Your task to perform on an android device: find which apps use the phone's location Image 0: 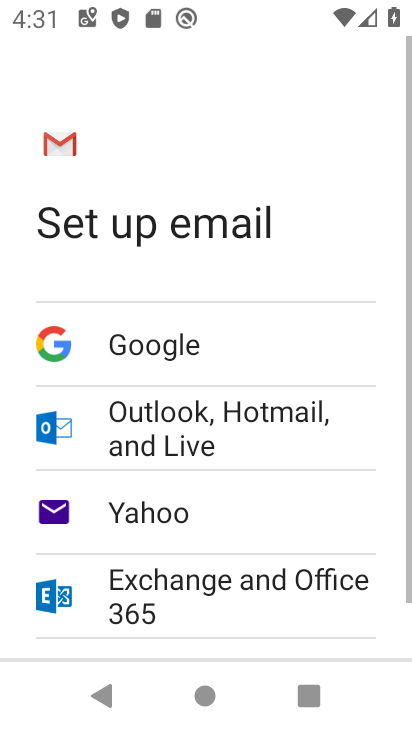
Step 0: press back button
Your task to perform on an android device: find which apps use the phone's location Image 1: 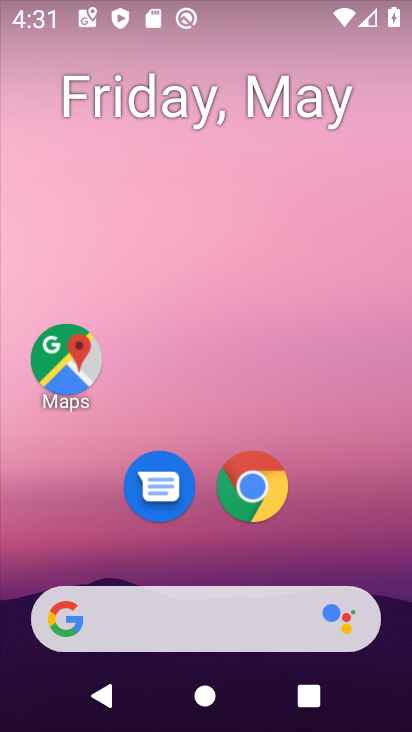
Step 1: drag from (353, 526) to (322, 3)
Your task to perform on an android device: find which apps use the phone's location Image 2: 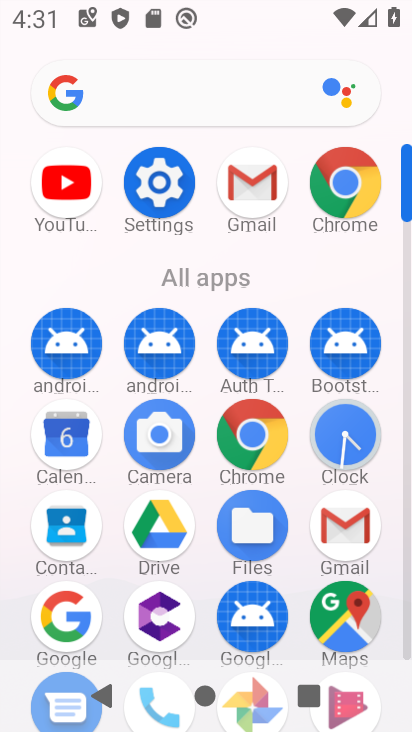
Step 2: drag from (5, 572) to (23, 179)
Your task to perform on an android device: find which apps use the phone's location Image 3: 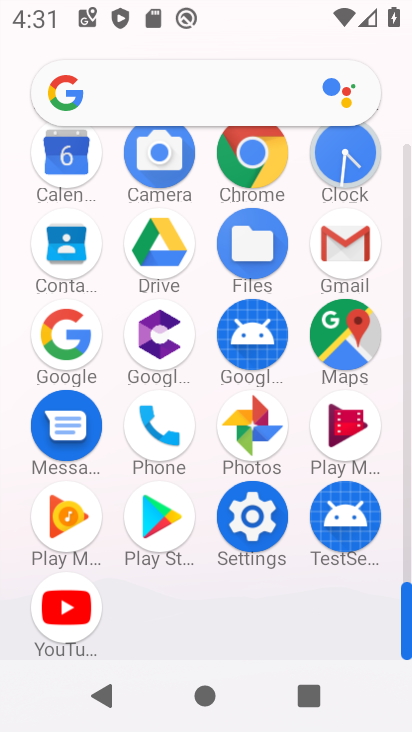
Step 3: drag from (20, 250) to (26, 553)
Your task to perform on an android device: find which apps use the phone's location Image 4: 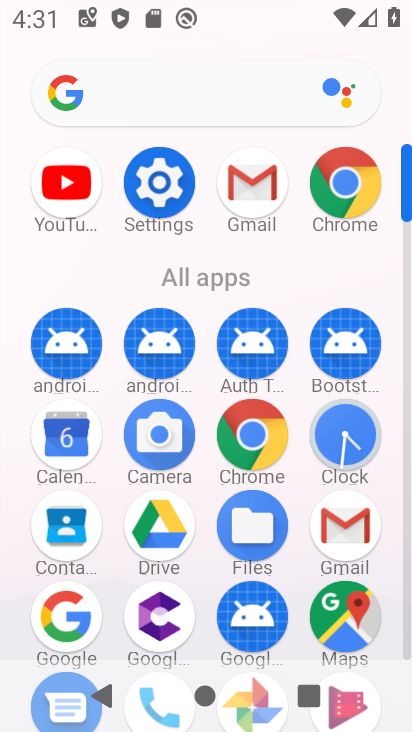
Step 4: drag from (18, 476) to (23, 200)
Your task to perform on an android device: find which apps use the phone's location Image 5: 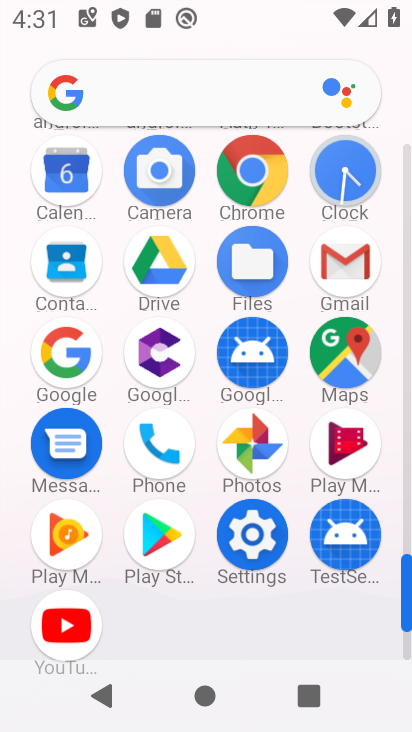
Step 5: click (251, 534)
Your task to perform on an android device: find which apps use the phone's location Image 6: 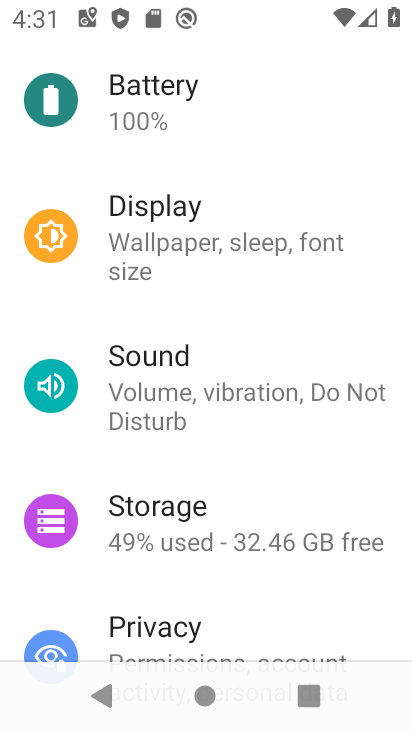
Step 6: drag from (233, 210) to (264, 583)
Your task to perform on an android device: find which apps use the phone's location Image 7: 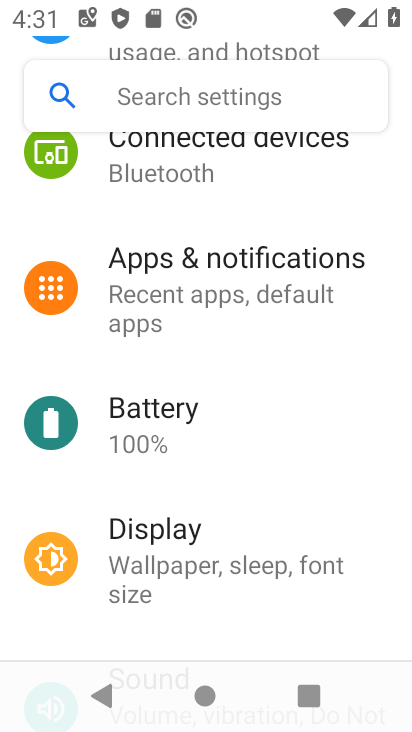
Step 7: drag from (296, 154) to (300, 501)
Your task to perform on an android device: find which apps use the phone's location Image 8: 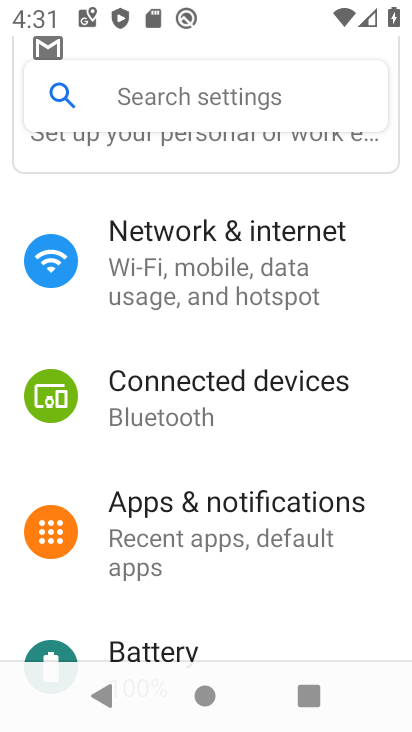
Step 8: drag from (280, 284) to (301, 571)
Your task to perform on an android device: find which apps use the phone's location Image 9: 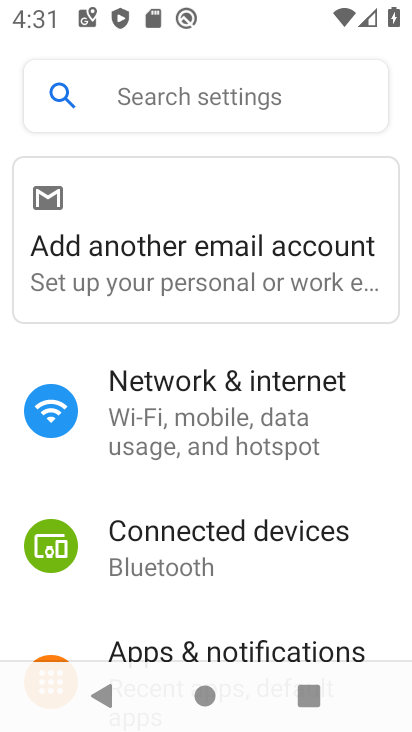
Step 9: drag from (277, 559) to (311, 142)
Your task to perform on an android device: find which apps use the phone's location Image 10: 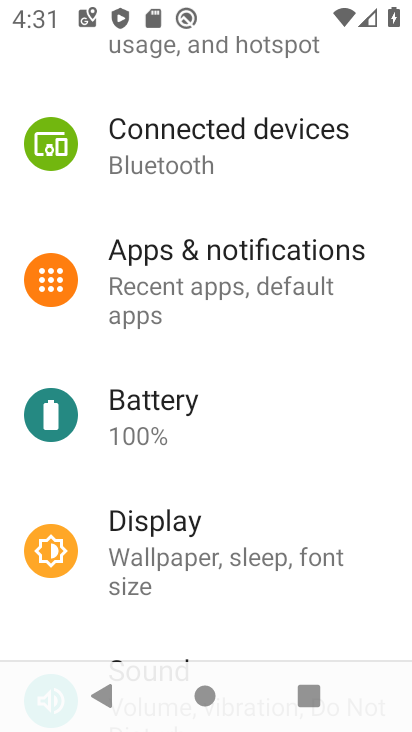
Step 10: drag from (284, 513) to (316, 221)
Your task to perform on an android device: find which apps use the phone's location Image 11: 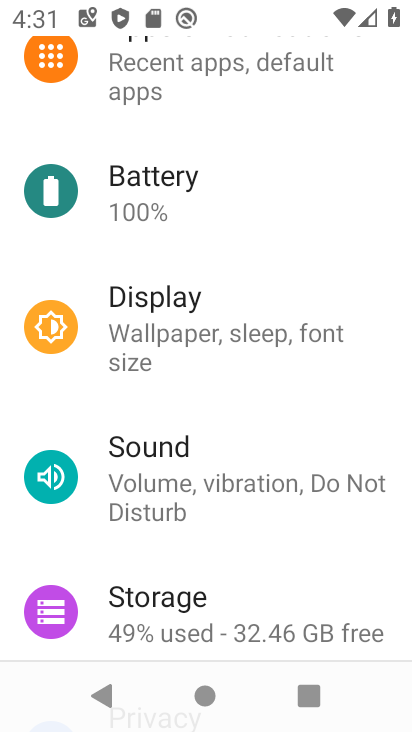
Step 11: drag from (270, 501) to (319, 225)
Your task to perform on an android device: find which apps use the phone's location Image 12: 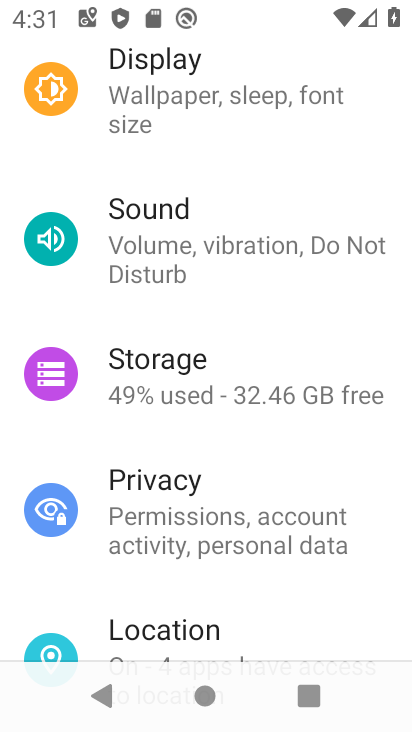
Step 12: drag from (278, 547) to (301, 238)
Your task to perform on an android device: find which apps use the phone's location Image 13: 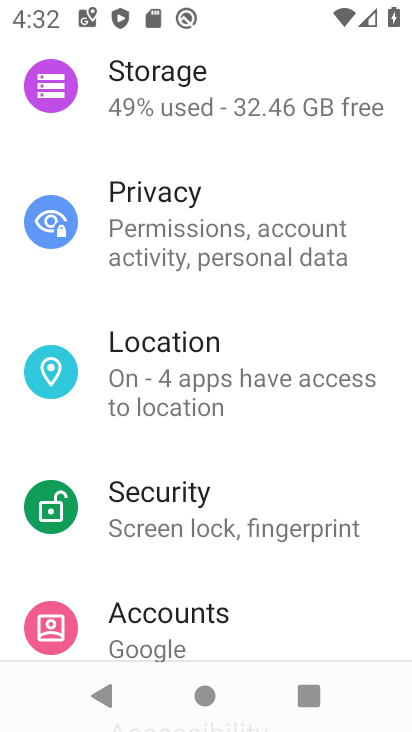
Step 13: click (199, 353)
Your task to perform on an android device: find which apps use the phone's location Image 14: 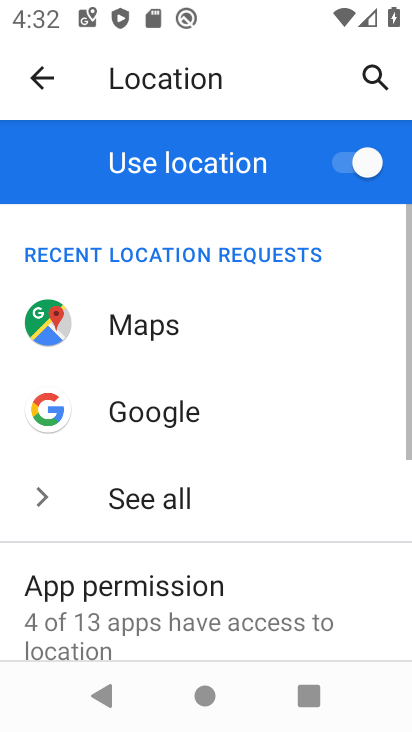
Step 14: click (175, 496)
Your task to perform on an android device: find which apps use the phone's location Image 15: 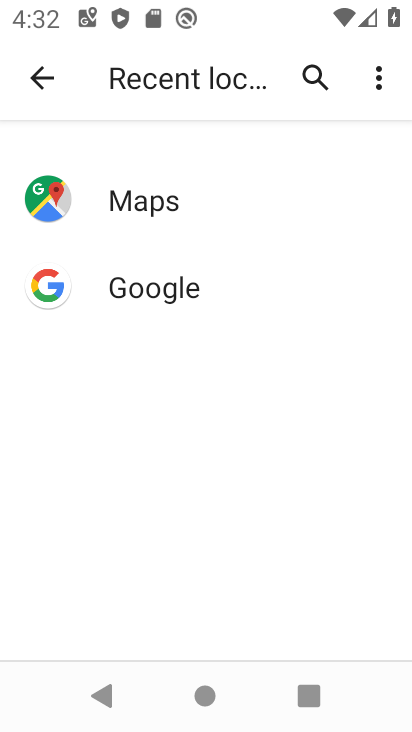
Step 15: click (35, 71)
Your task to perform on an android device: find which apps use the phone's location Image 16: 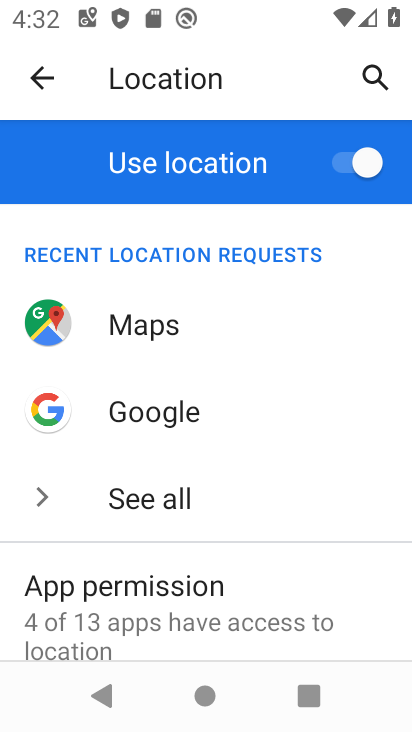
Step 16: drag from (221, 585) to (255, 381)
Your task to perform on an android device: find which apps use the phone's location Image 17: 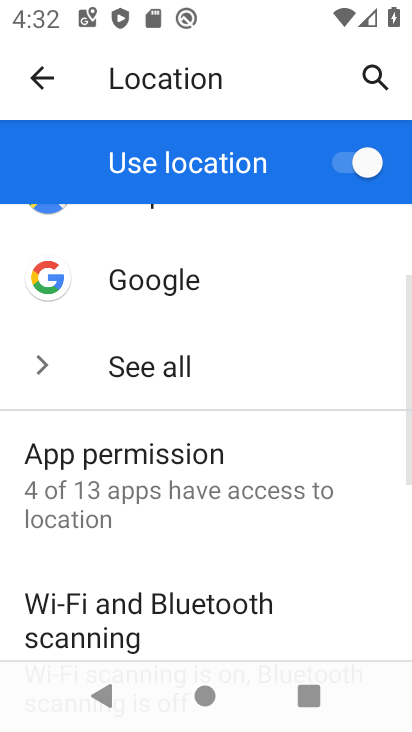
Step 17: click (175, 440)
Your task to perform on an android device: find which apps use the phone's location Image 18: 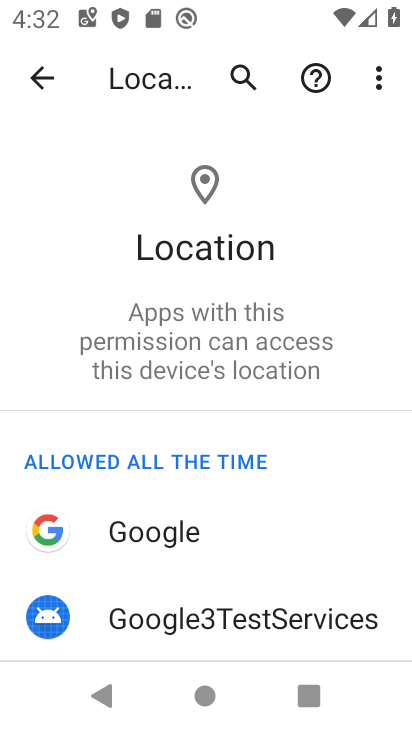
Step 18: task complete